Your task to perform on an android device: turn on bluetooth scan Image 0: 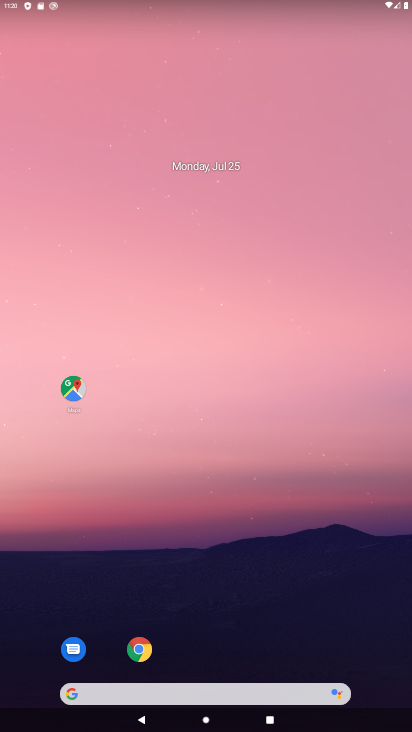
Step 0: drag from (237, 322) to (242, 24)
Your task to perform on an android device: turn on bluetooth scan Image 1: 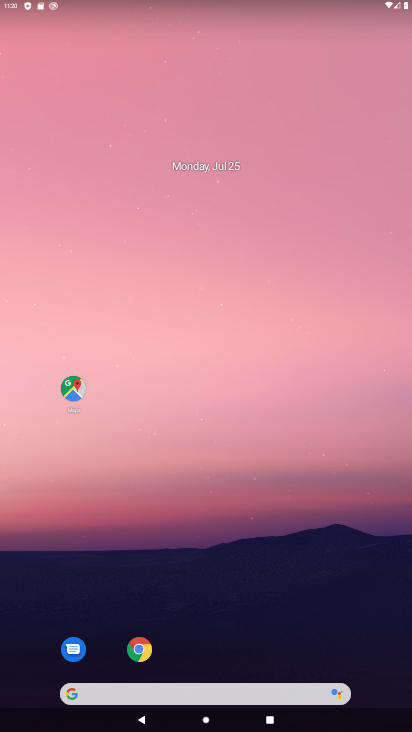
Step 1: drag from (191, 408) to (194, 63)
Your task to perform on an android device: turn on bluetooth scan Image 2: 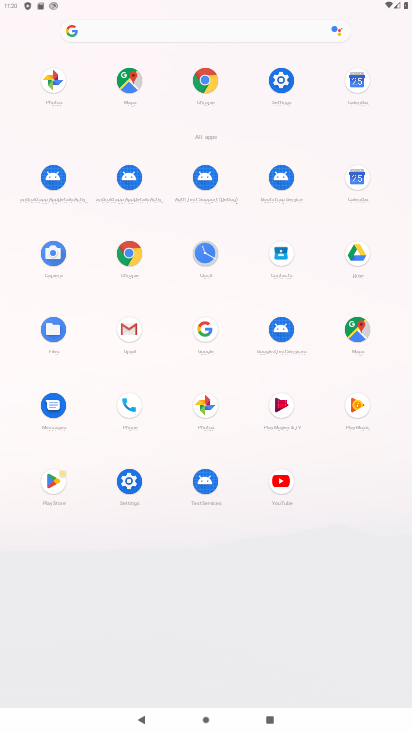
Step 2: click (133, 485)
Your task to perform on an android device: turn on bluetooth scan Image 3: 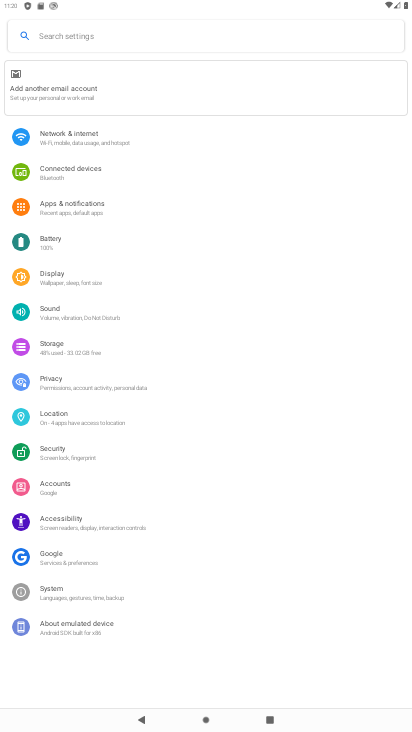
Step 3: click (104, 412)
Your task to perform on an android device: turn on bluetooth scan Image 4: 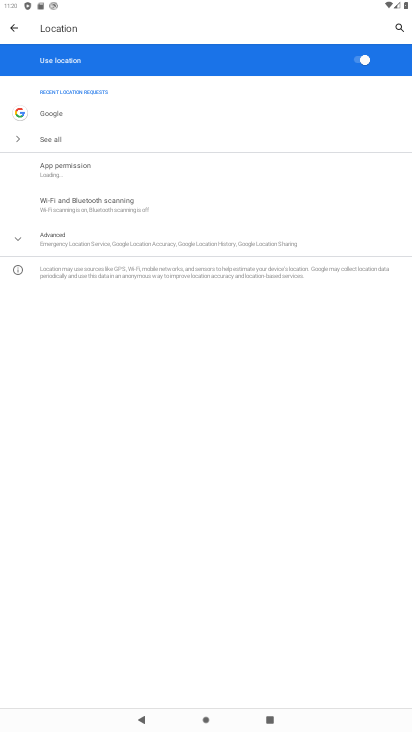
Step 4: click (103, 205)
Your task to perform on an android device: turn on bluetooth scan Image 5: 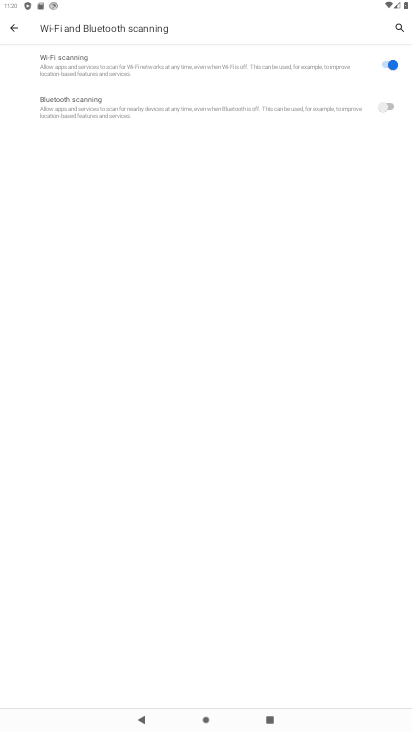
Step 5: click (391, 107)
Your task to perform on an android device: turn on bluetooth scan Image 6: 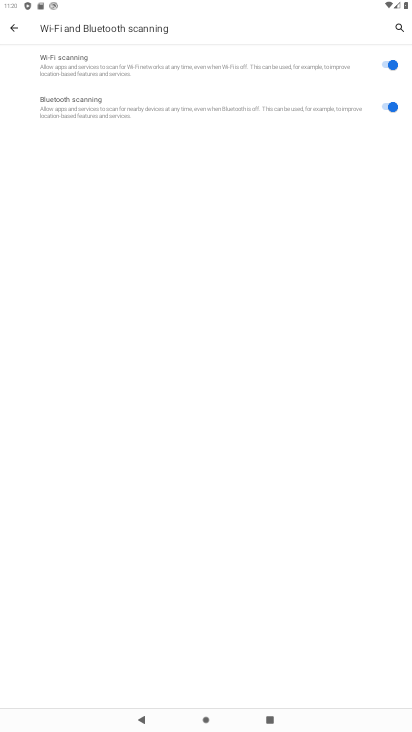
Step 6: task complete